Your task to perform on an android device: Go to location settings Image 0: 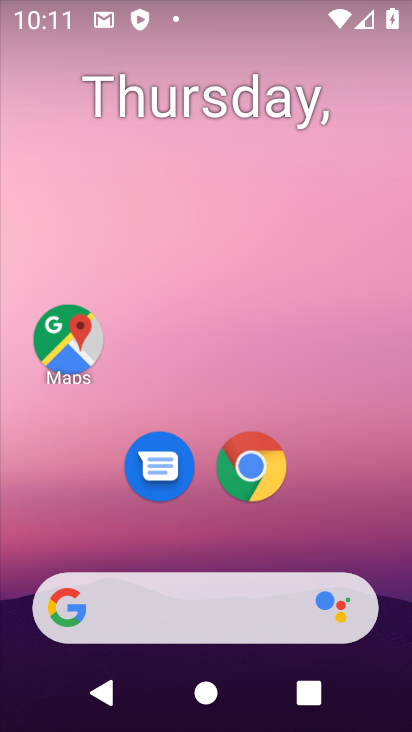
Step 0: drag from (211, 533) to (214, 112)
Your task to perform on an android device: Go to location settings Image 1: 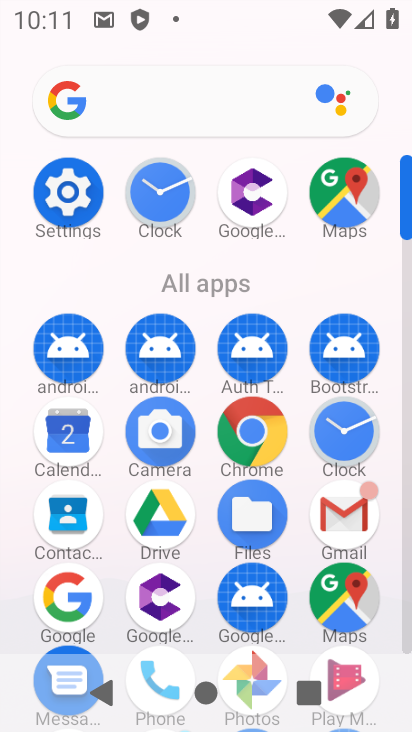
Step 1: click (65, 185)
Your task to perform on an android device: Go to location settings Image 2: 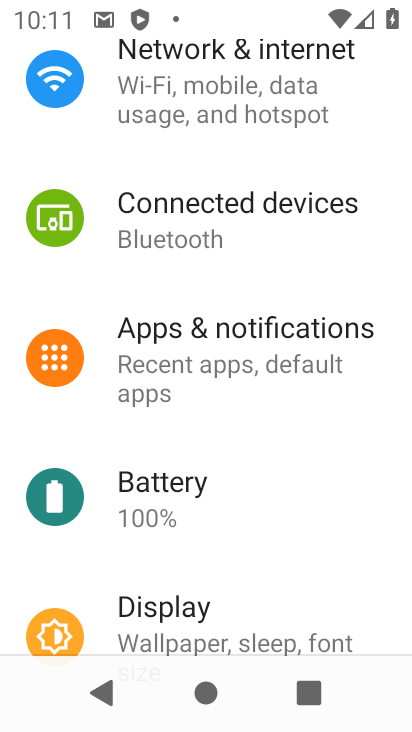
Step 2: drag from (250, 604) to (213, 244)
Your task to perform on an android device: Go to location settings Image 3: 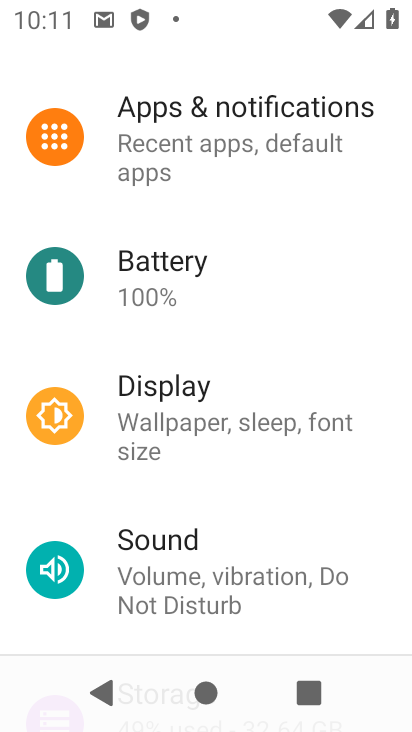
Step 3: drag from (257, 589) to (258, 266)
Your task to perform on an android device: Go to location settings Image 4: 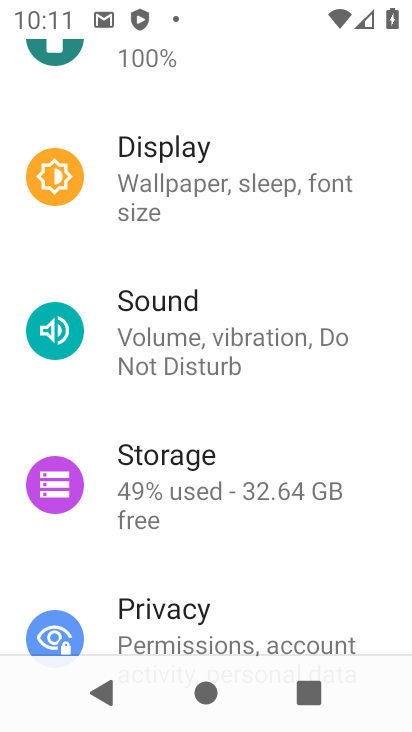
Step 4: drag from (232, 594) to (217, 287)
Your task to perform on an android device: Go to location settings Image 5: 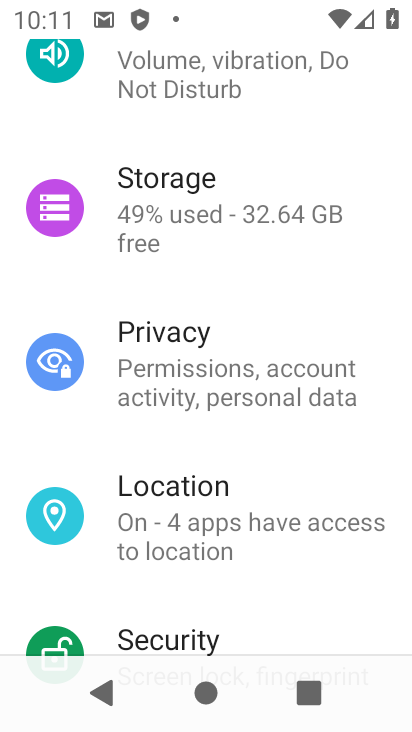
Step 5: click (219, 543)
Your task to perform on an android device: Go to location settings Image 6: 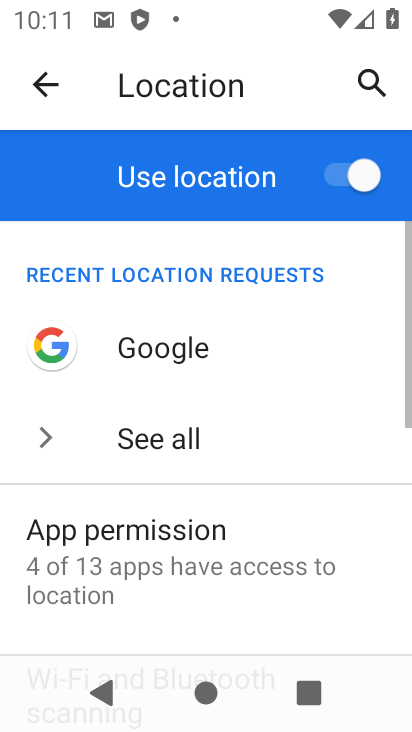
Step 6: task complete